Your task to perform on an android device: check storage Image 0: 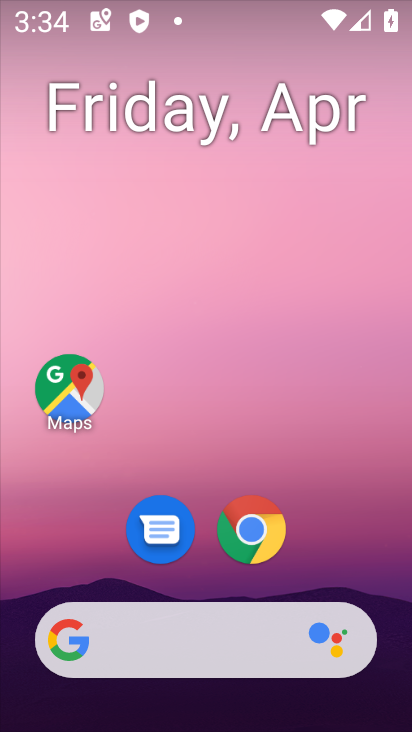
Step 0: drag from (320, 552) to (341, 126)
Your task to perform on an android device: check storage Image 1: 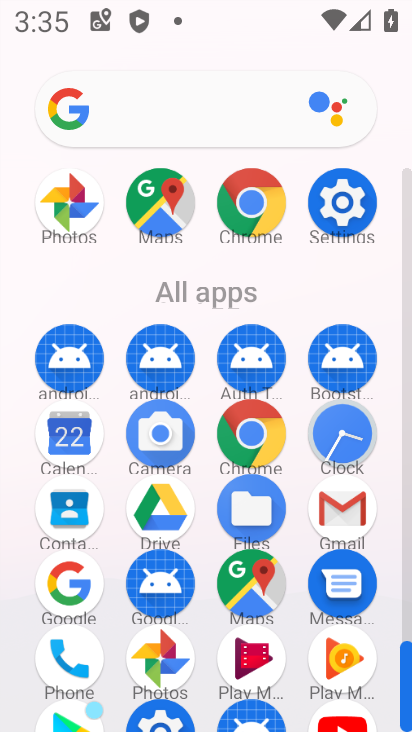
Step 1: click (358, 209)
Your task to perform on an android device: check storage Image 2: 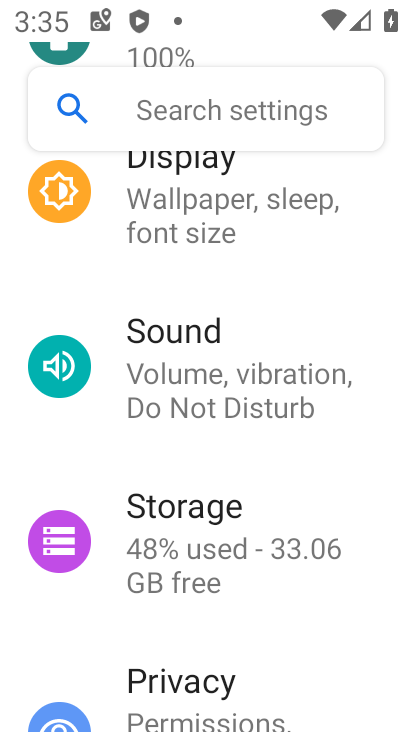
Step 2: click (196, 533)
Your task to perform on an android device: check storage Image 3: 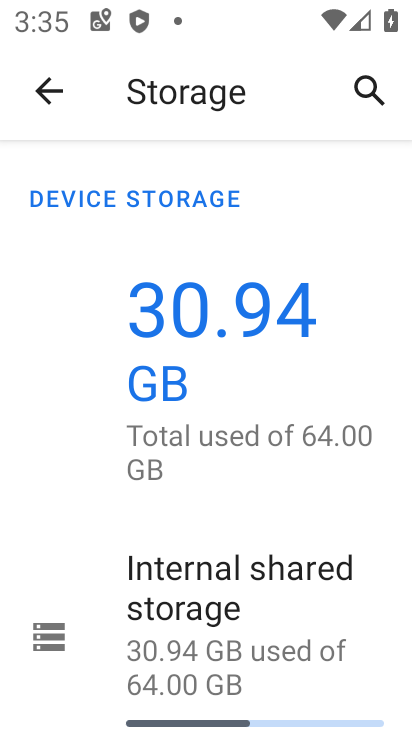
Step 3: task complete